Your task to perform on an android device: Search for good Chinese restaurants Image 0: 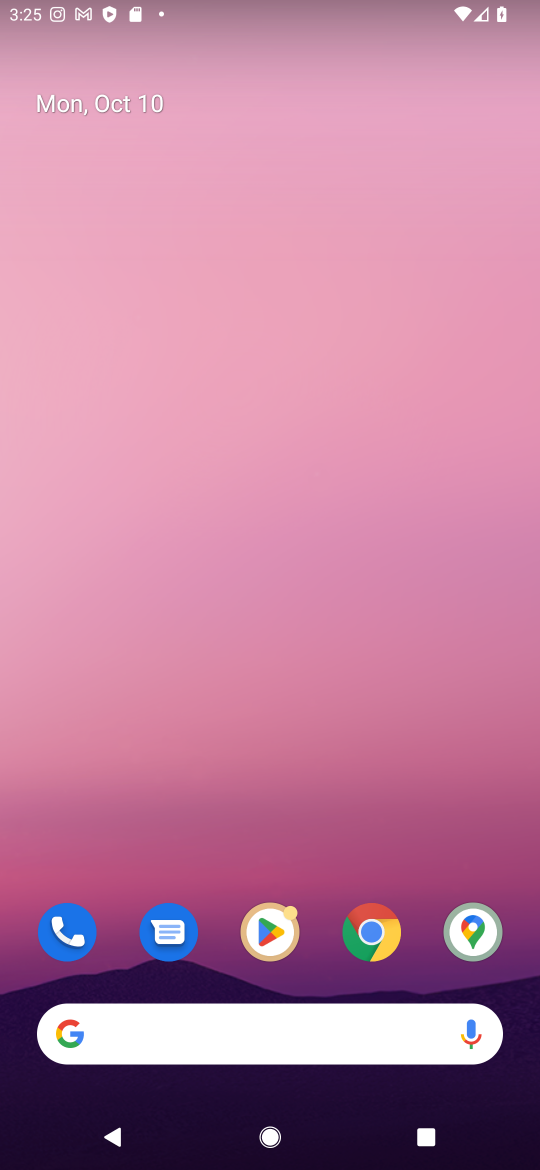
Step 0: click (281, 1040)
Your task to perform on an android device: Search for good Chinese restaurants Image 1: 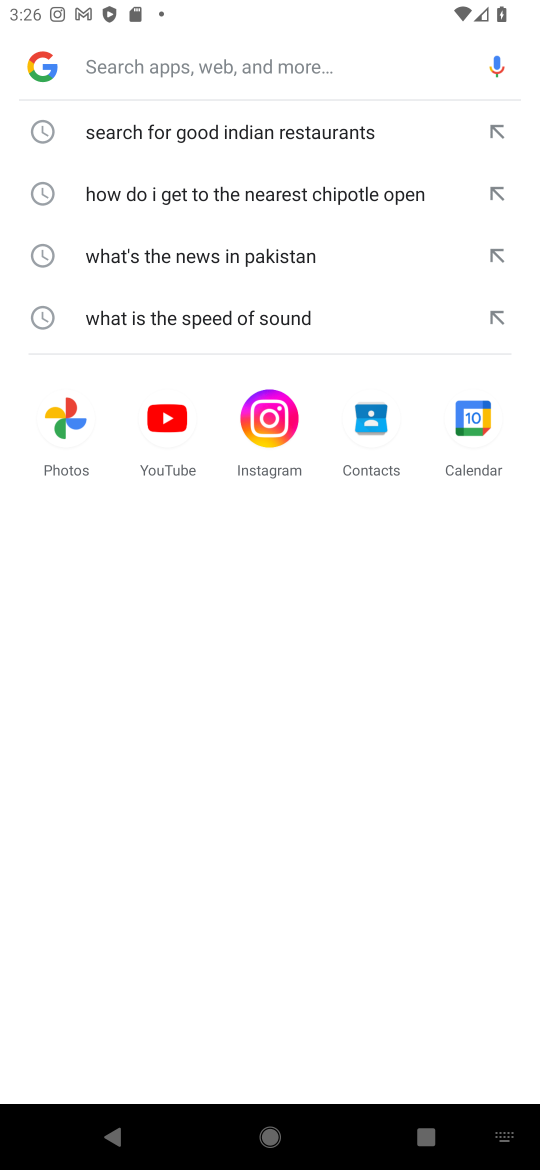
Step 1: type "good Chinese restaurants"
Your task to perform on an android device: Search for good Chinese restaurants Image 2: 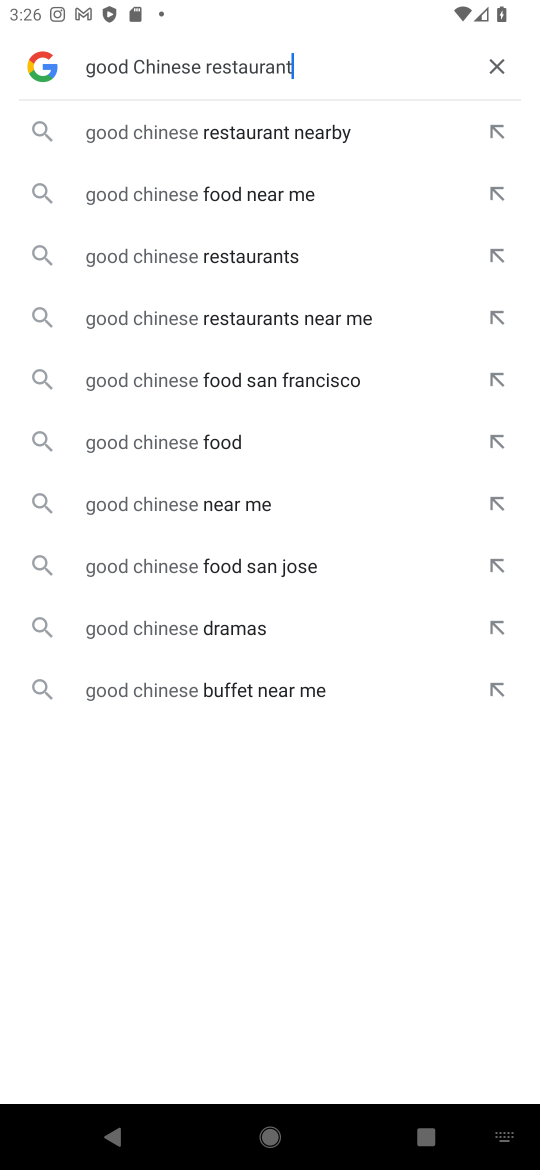
Step 2: press enter
Your task to perform on an android device: Search for good Chinese restaurants Image 3: 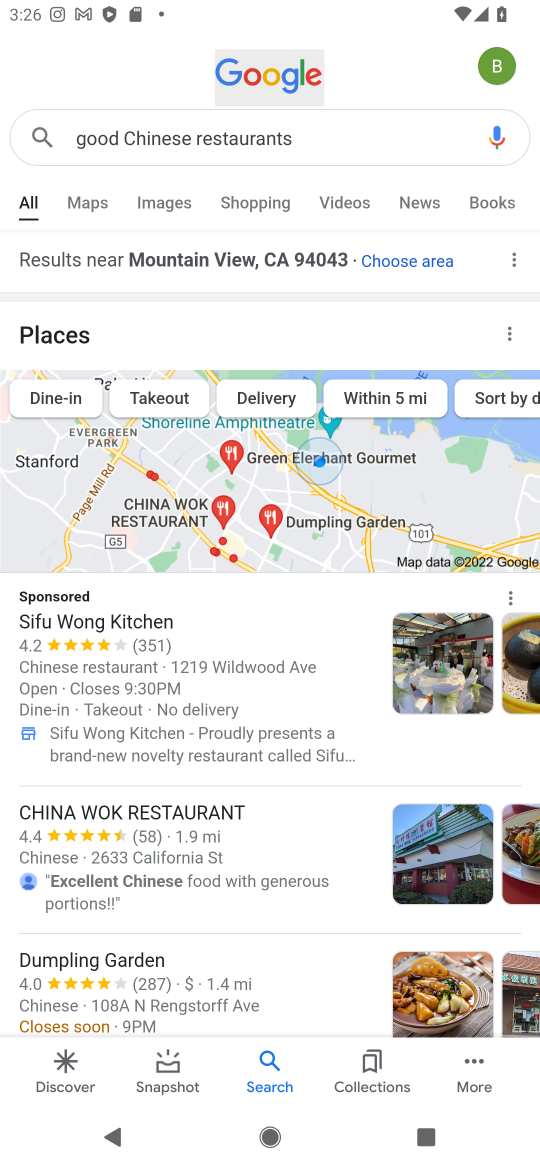
Step 3: drag from (296, 860) to (292, 500)
Your task to perform on an android device: Search for good Chinese restaurants Image 4: 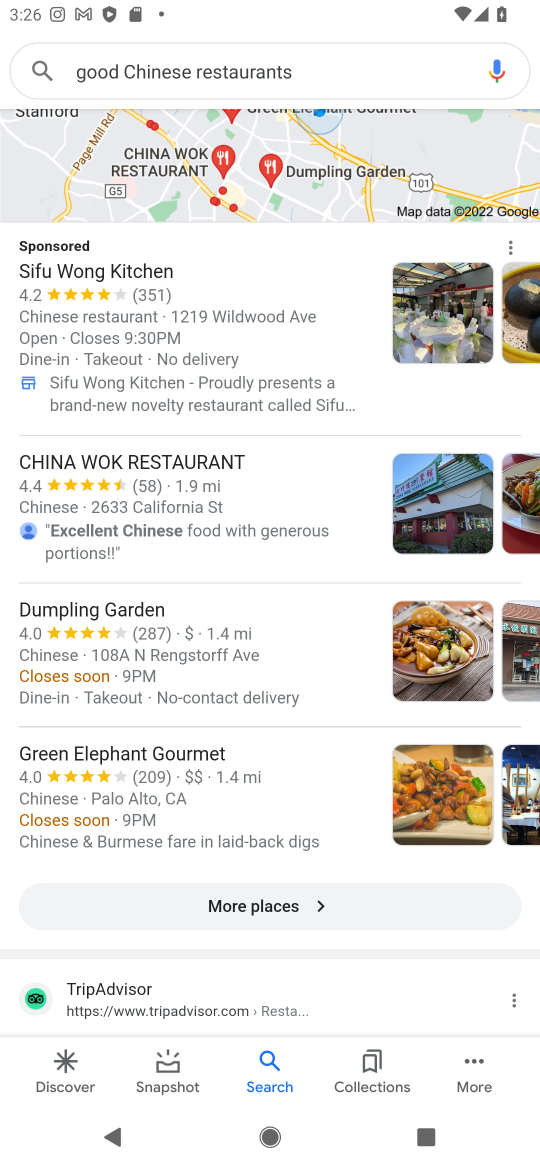
Step 4: click (256, 902)
Your task to perform on an android device: Search for good Chinese restaurants Image 5: 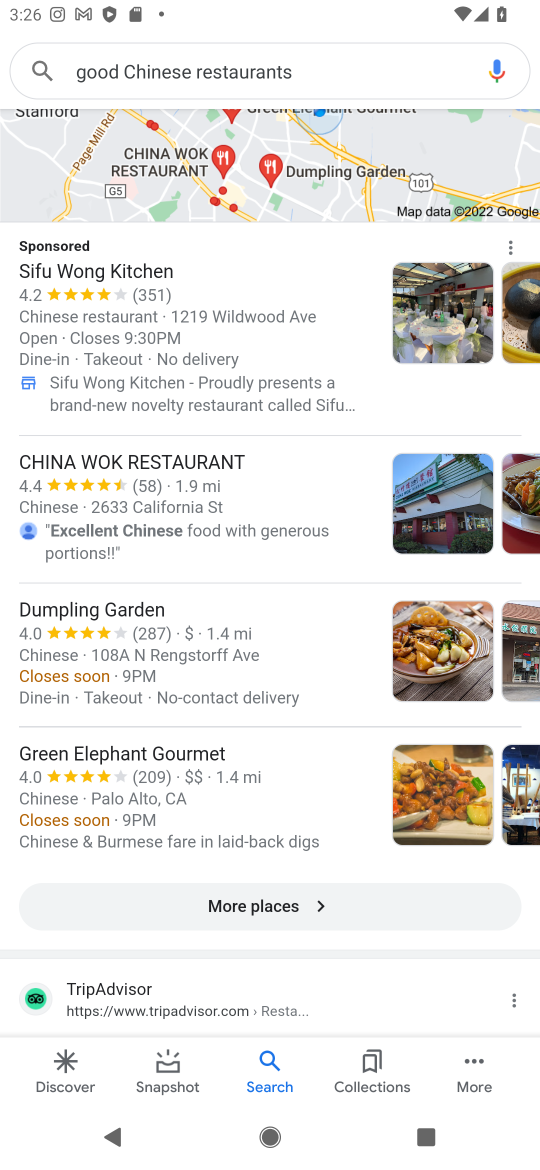
Step 5: task complete